Your task to perform on an android device: Search for "usb-c to usb-a" on bestbuy, select the first entry, and add it to the cart. Image 0: 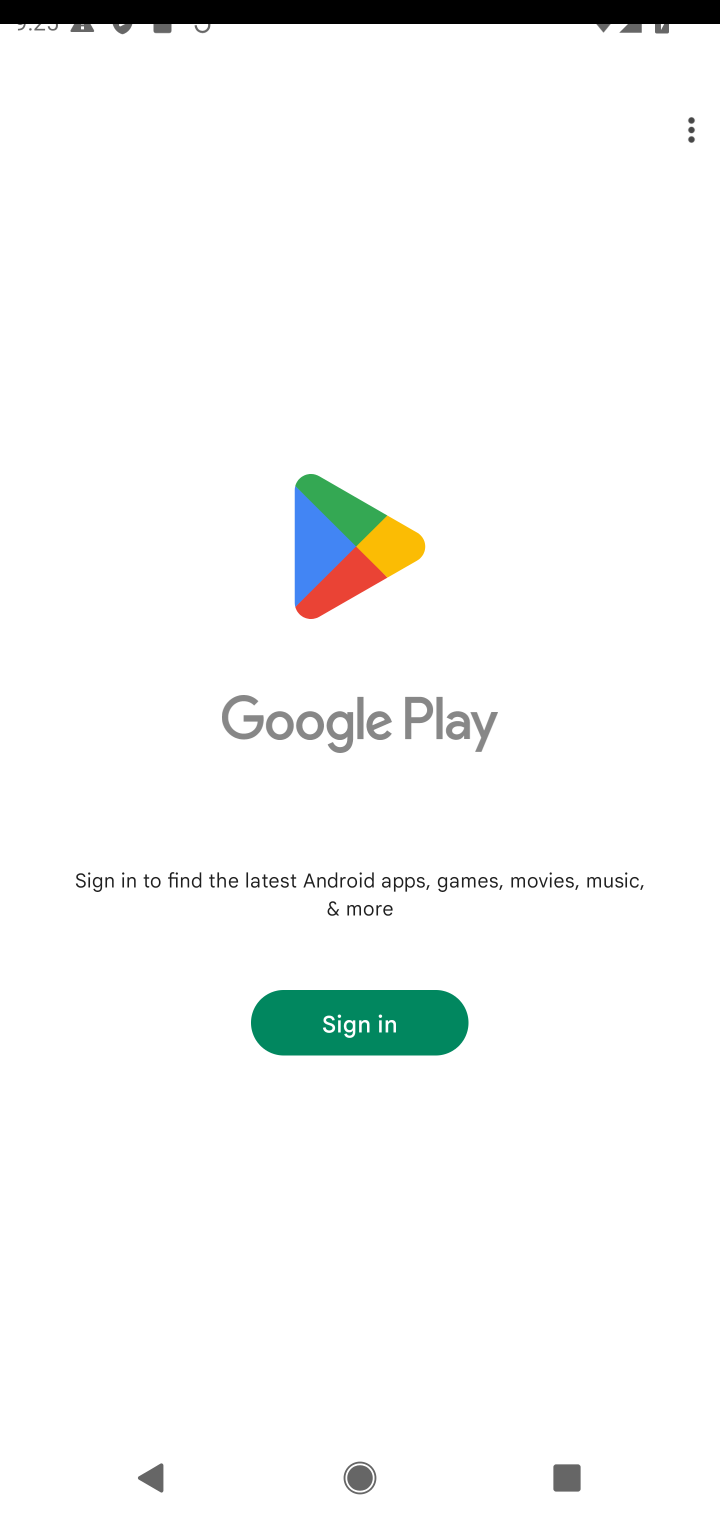
Step 0: press home button
Your task to perform on an android device: Search for "usb-c to usb-a" on bestbuy, select the first entry, and add it to the cart. Image 1: 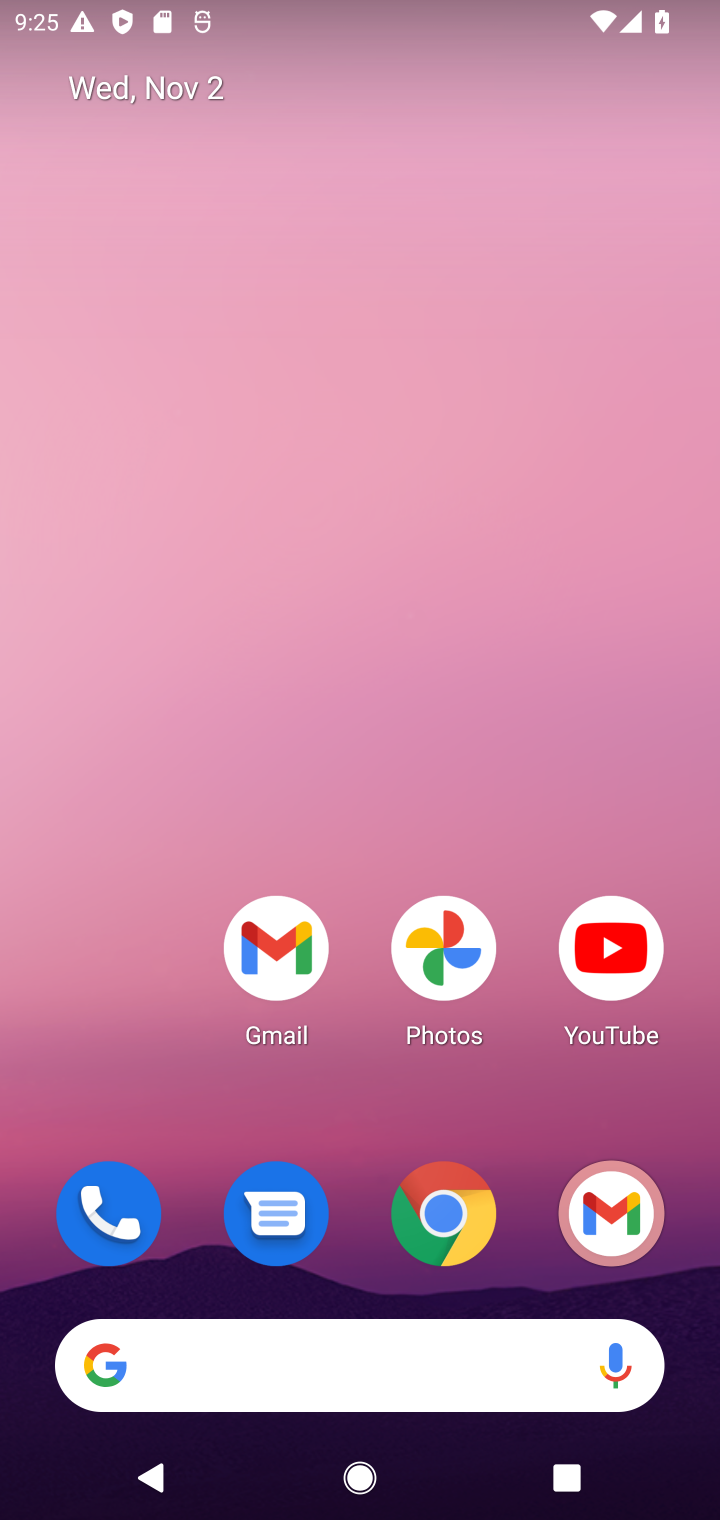
Step 1: click (453, 1234)
Your task to perform on an android device: Search for "usb-c to usb-a" on bestbuy, select the first entry, and add it to the cart. Image 2: 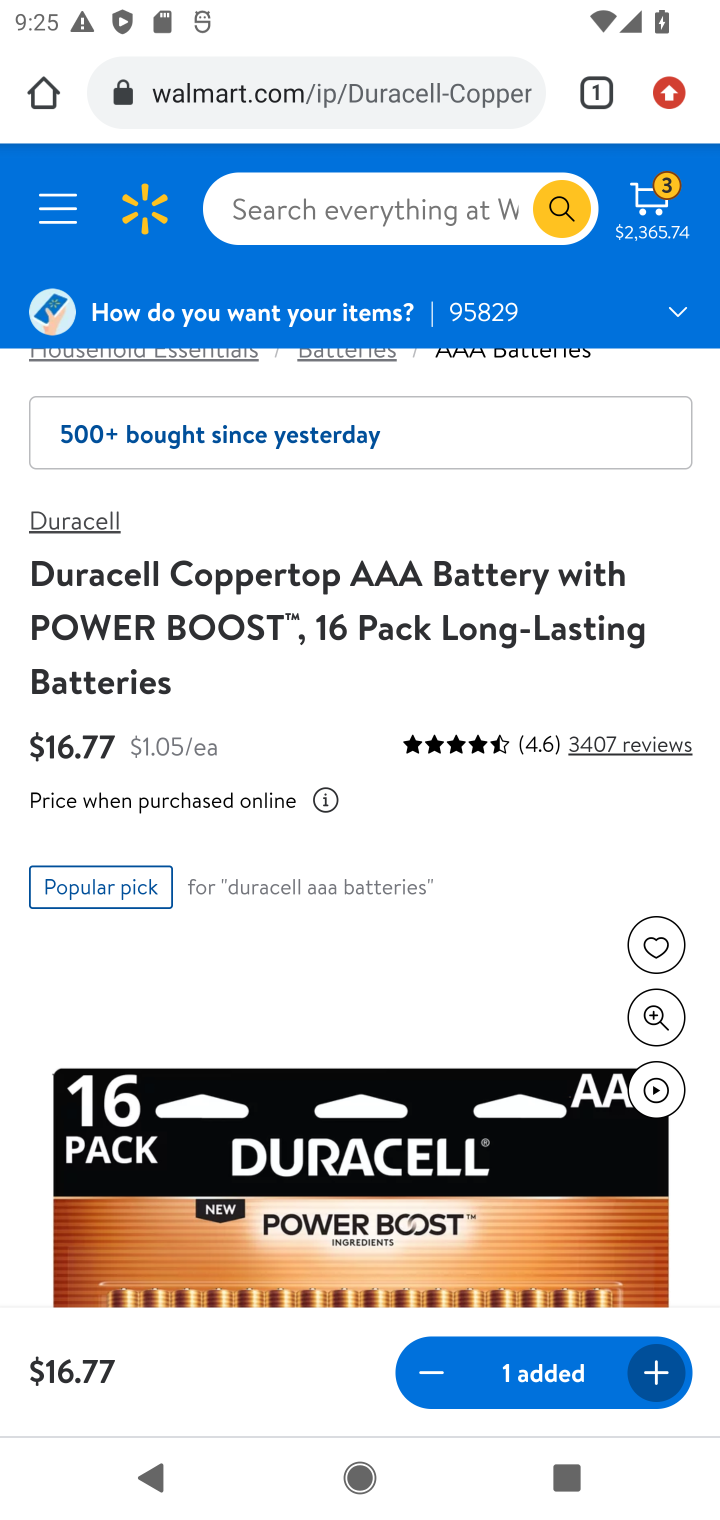
Step 2: click (324, 95)
Your task to perform on an android device: Search for "usb-c to usb-a" on bestbuy, select the first entry, and add it to the cart. Image 3: 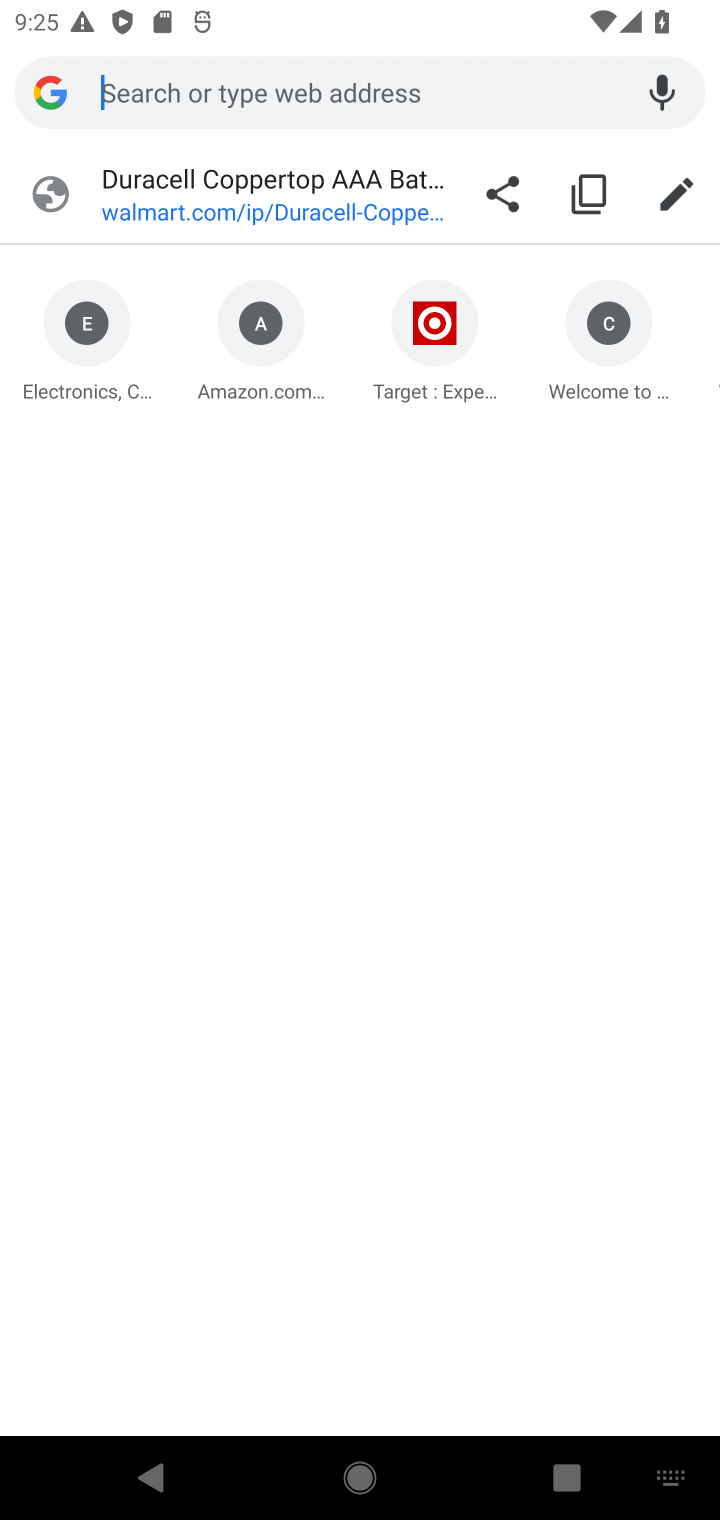
Step 3: type "bestbuy.com"
Your task to perform on an android device: Search for "usb-c to usb-a" on bestbuy, select the first entry, and add it to the cart. Image 4: 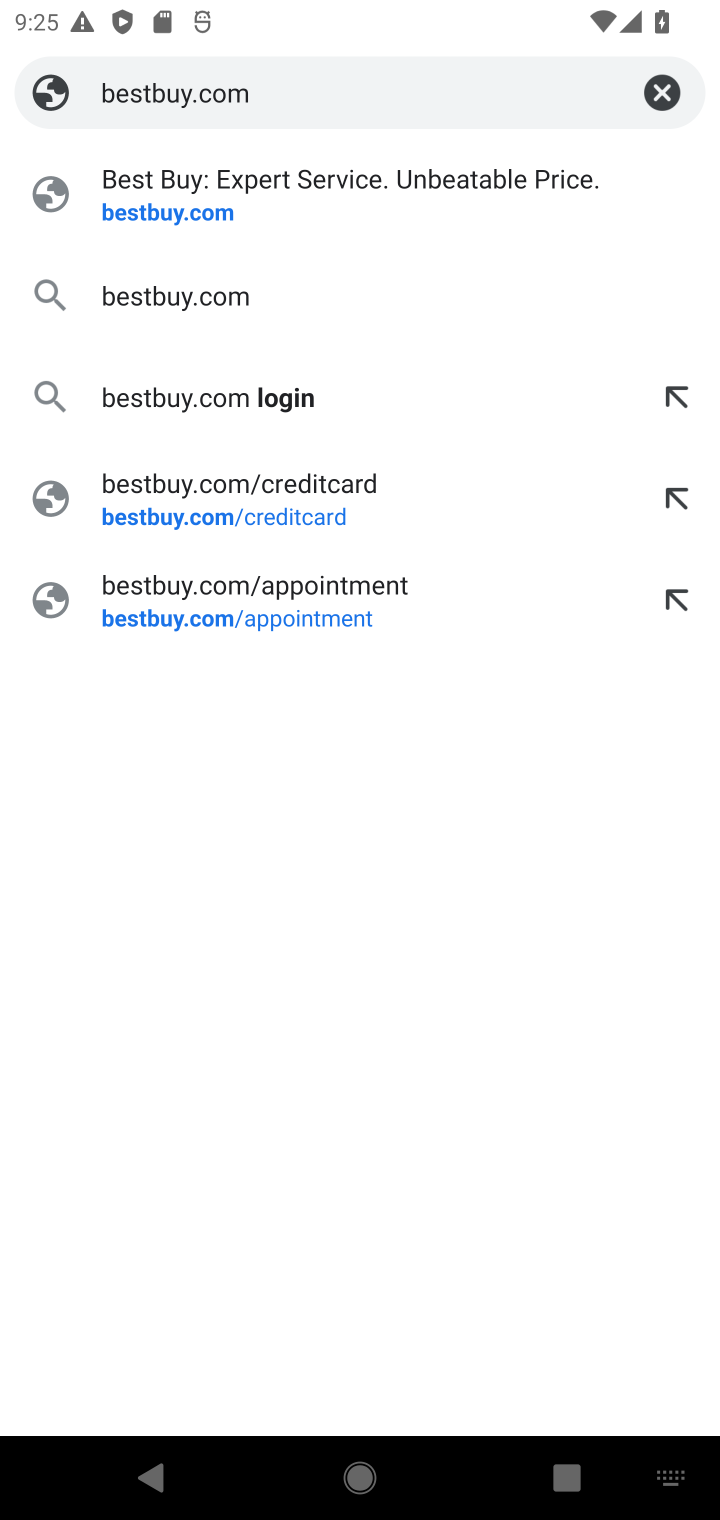
Step 4: click (147, 231)
Your task to perform on an android device: Search for "usb-c to usb-a" on bestbuy, select the first entry, and add it to the cart. Image 5: 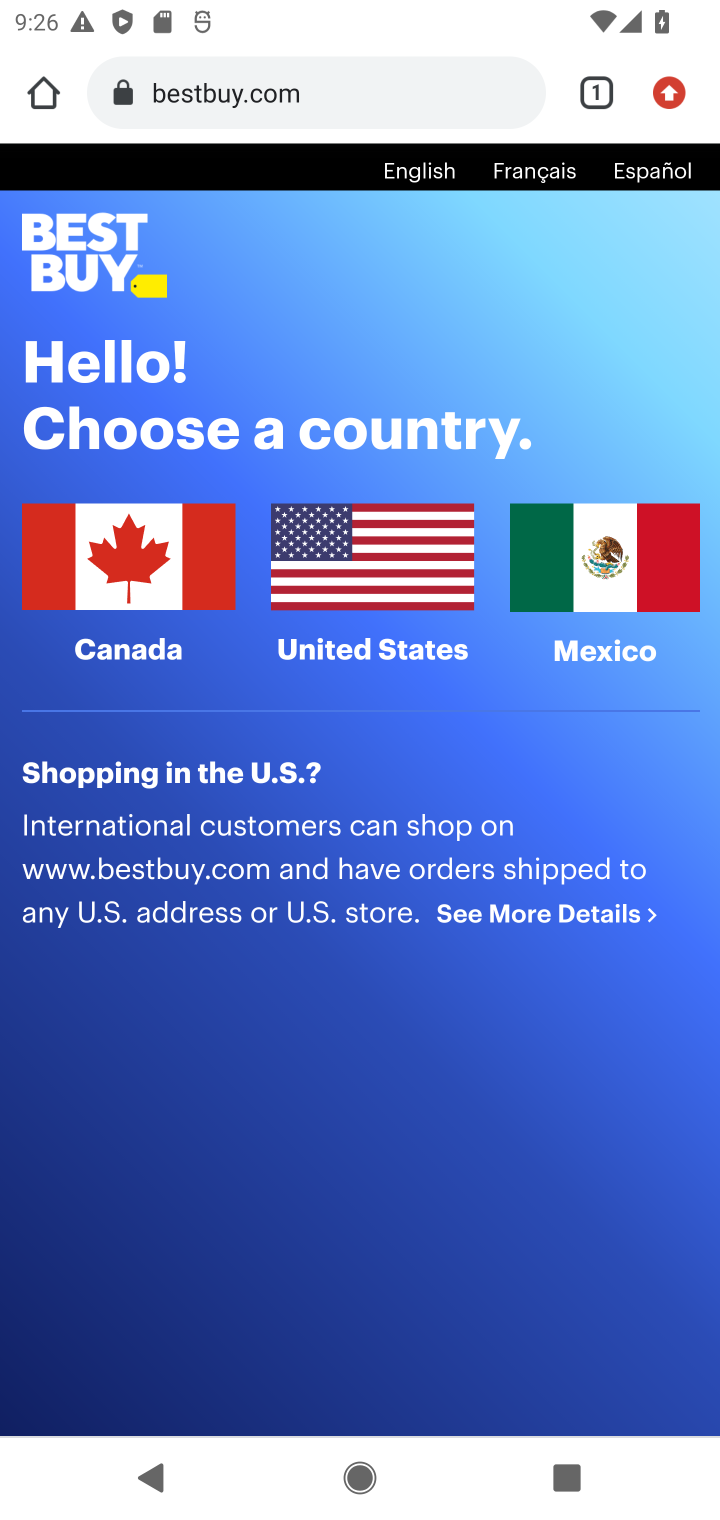
Step 5: click (355, 576)
Your task to perform on an android device: Search for "usb-c to usb-a" on bestbuy, select the first entry, and add it to the cart. Image 6: 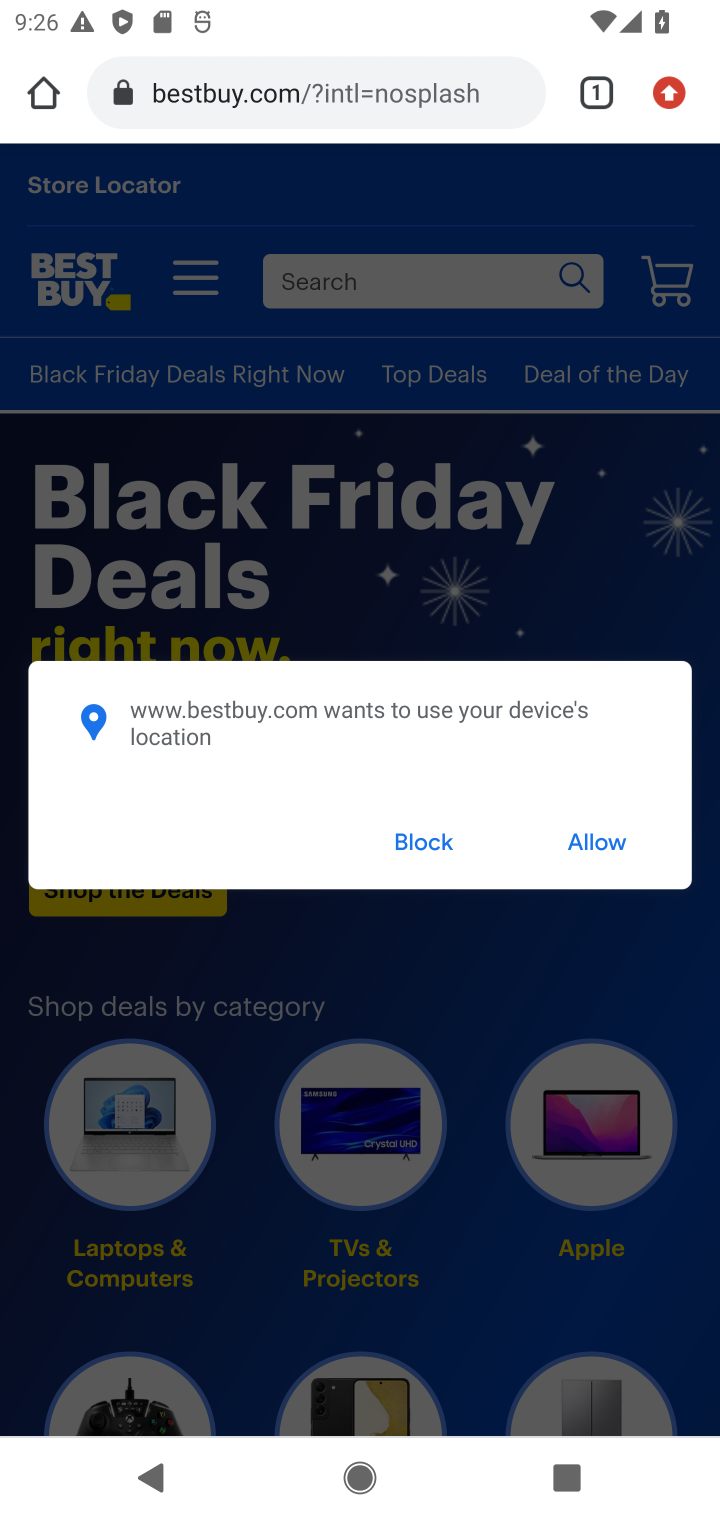
Step 6: click (342, 282)
Your task to perform on an android device: Search for "usb-c to usb-a" on bestbuy, select the first entry, and add it to the cart. Image 7: 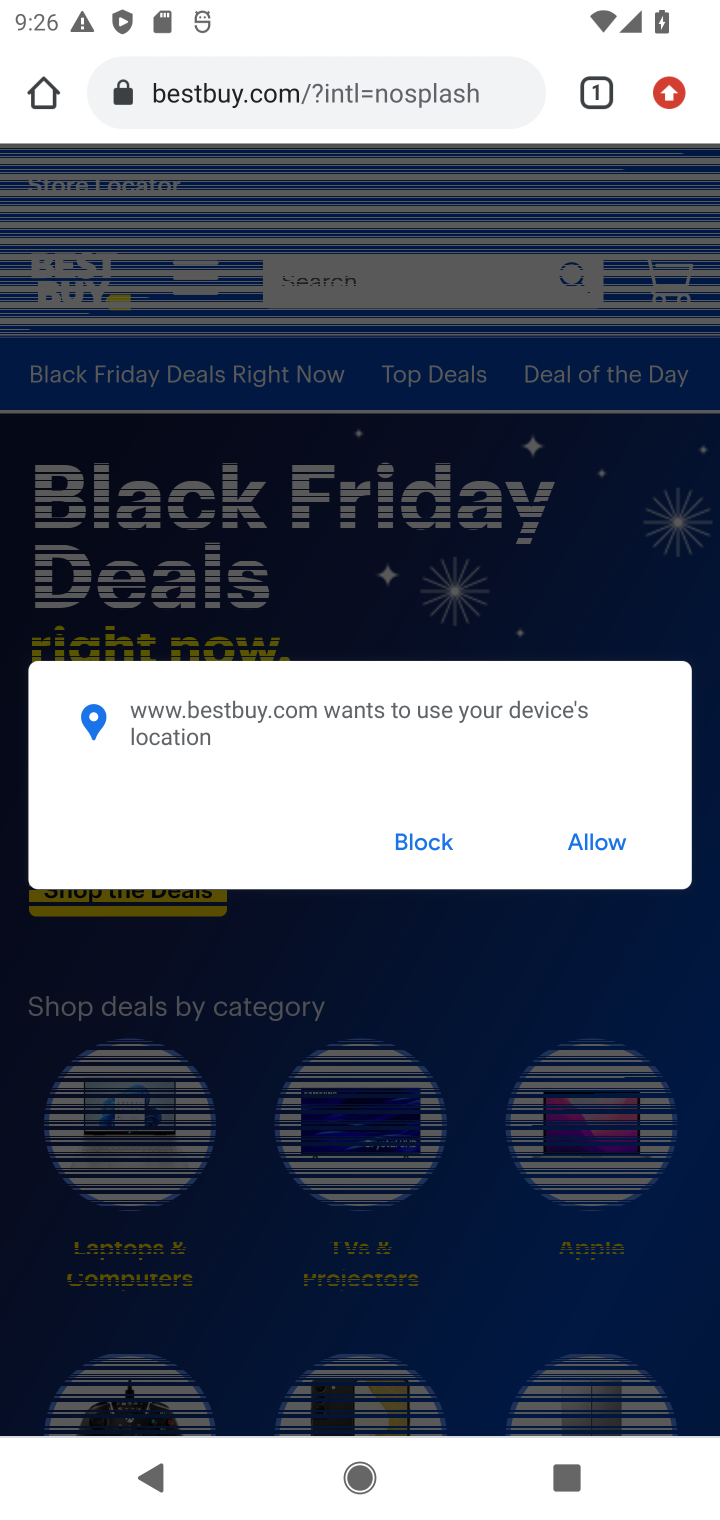
Step 7: click (407, 842)
Your task to perform on an android device: Search for "usb-c to usb-a" on bestbuy, select the first entry, and add it to the cart. Image 8: 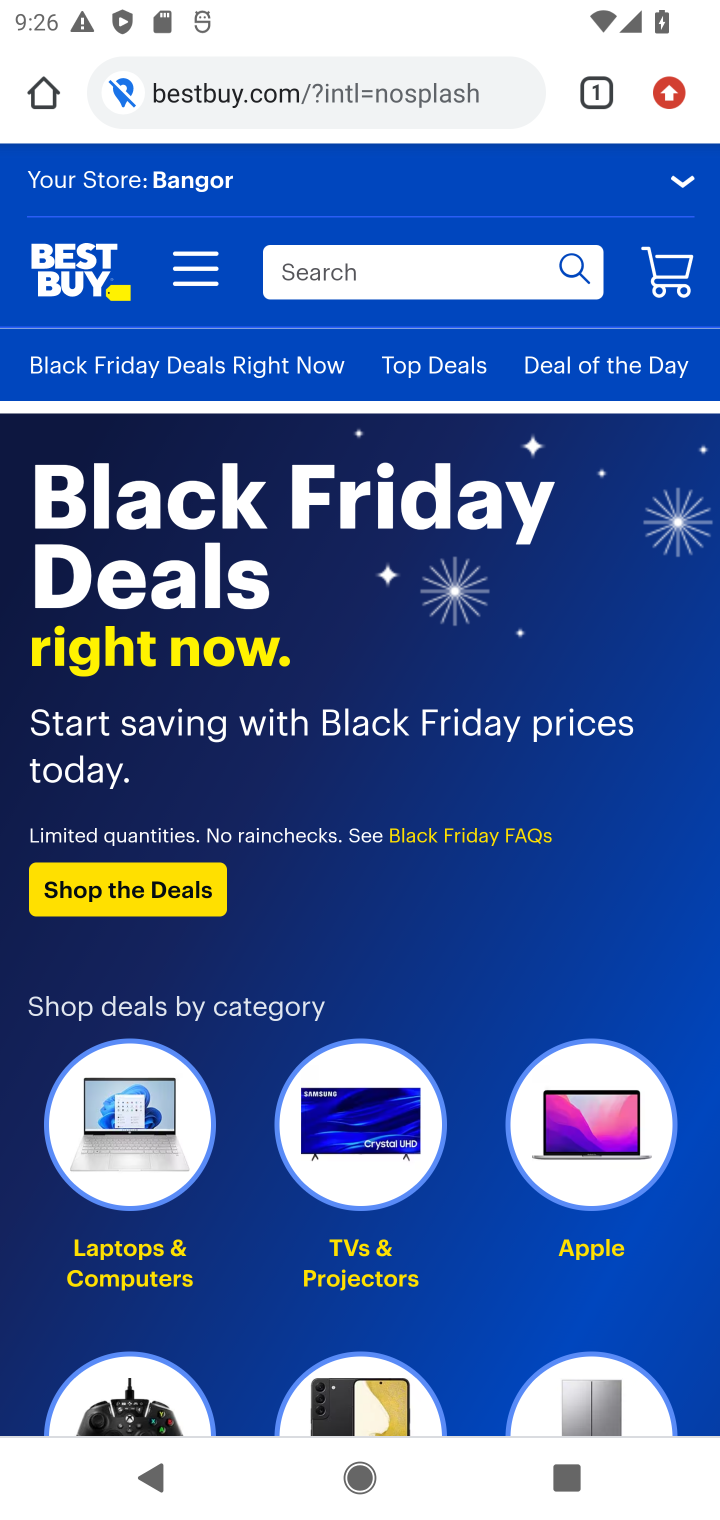
Step 8: click (363, 295)
Your task to perform on an android device: Search for "usb-c to usb-a" on bestbuy, select the first entry, and add it to the cart. Image 9: 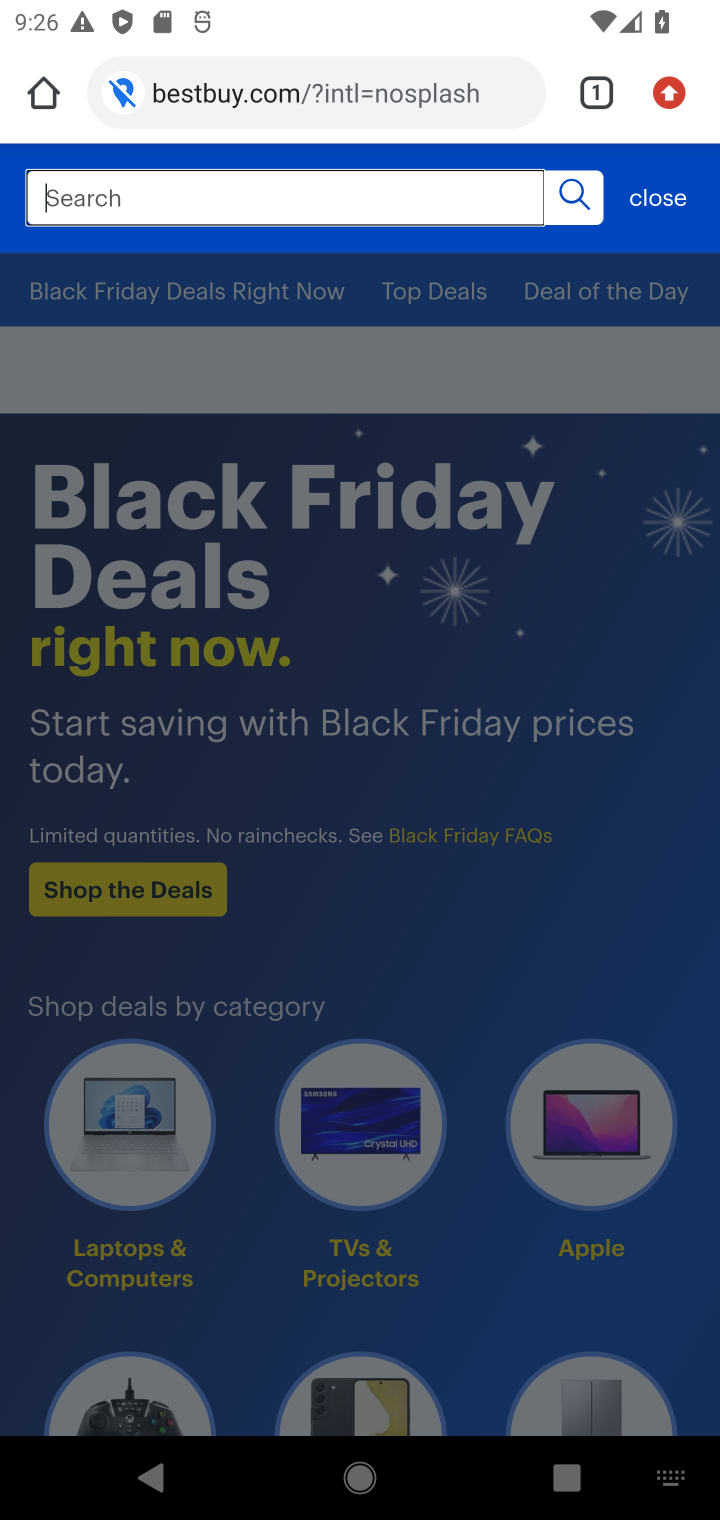
Step 9: type "usb-c to usb-a"
Your task to perform on an android device: Search for "usb-c to usb-a" on bestbuy, select the first entry, and add it to the cart. Image 10: 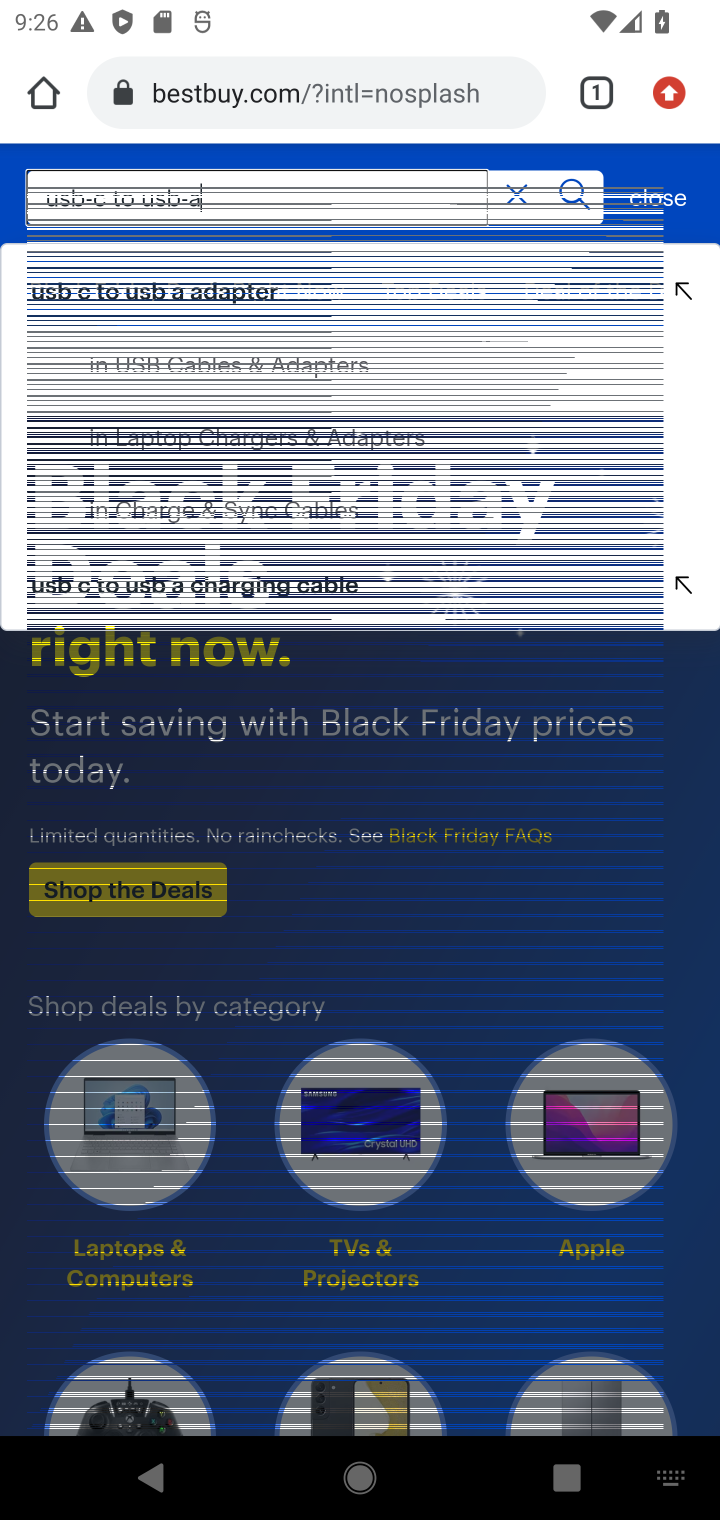
Step 10: click (163, 296)
Your task to perform on an android device: Search for "usb-c to usb-a" on bestbuy, select the first entry, and add it to the cart. Image 11: 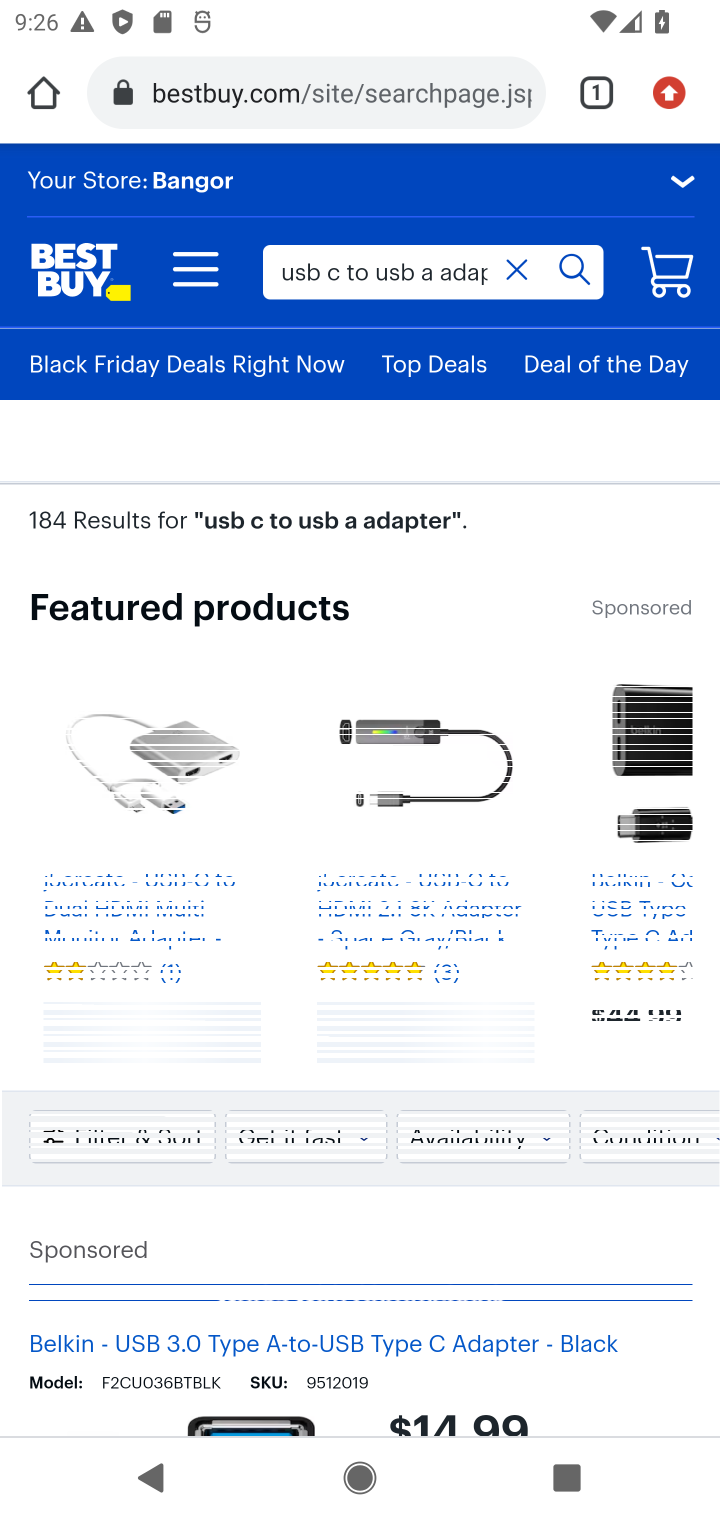
Step 11: drag from (381, 1088) to (387, 563)
Your task to perform on an android device: Search for "usb-c to usb-a" on bestbuy, select the first entry, and add it to the cart. Image 12: 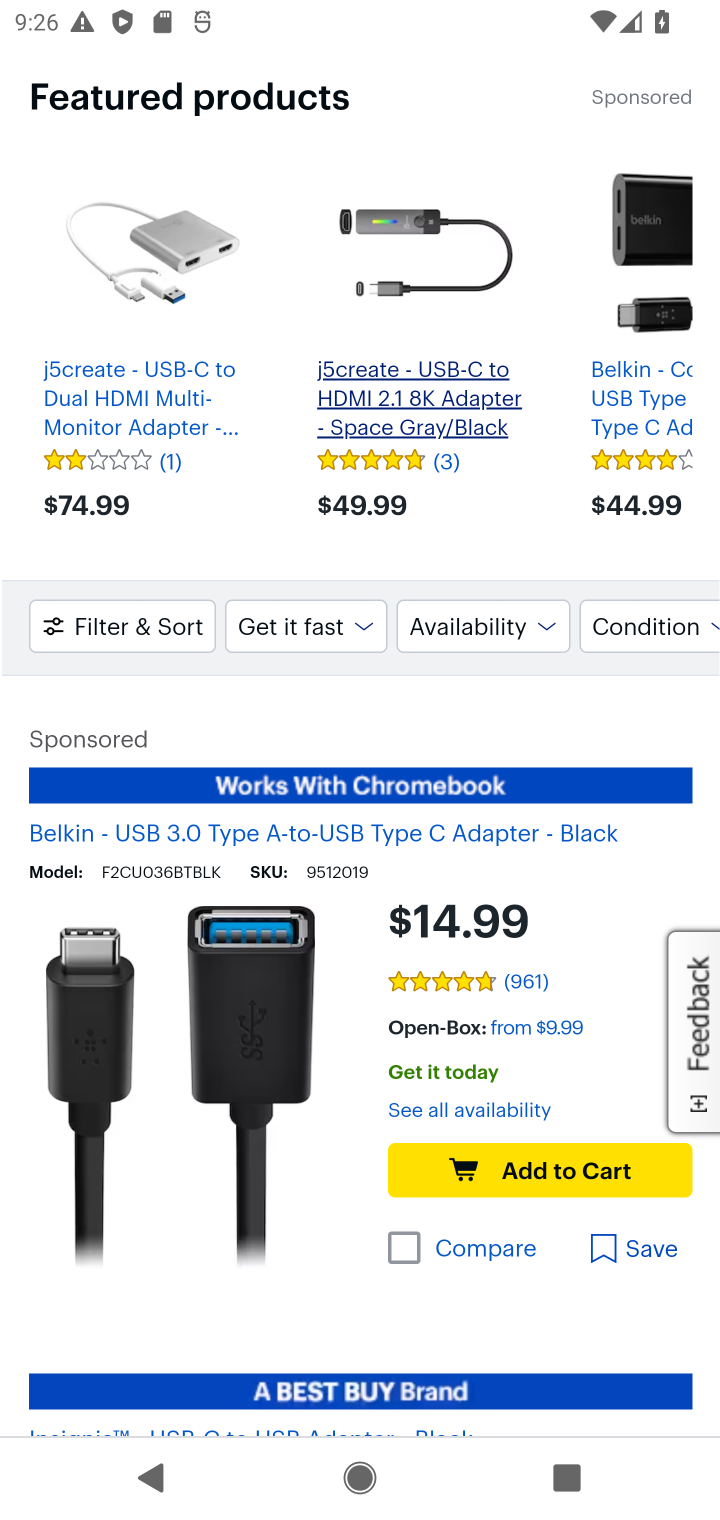
Step 12: click (264, 1066)
Your task to perform on an android device: Search for "usb-c to usb-a" on bestbuy, select the first entry, and add it to the cart. Image 13: 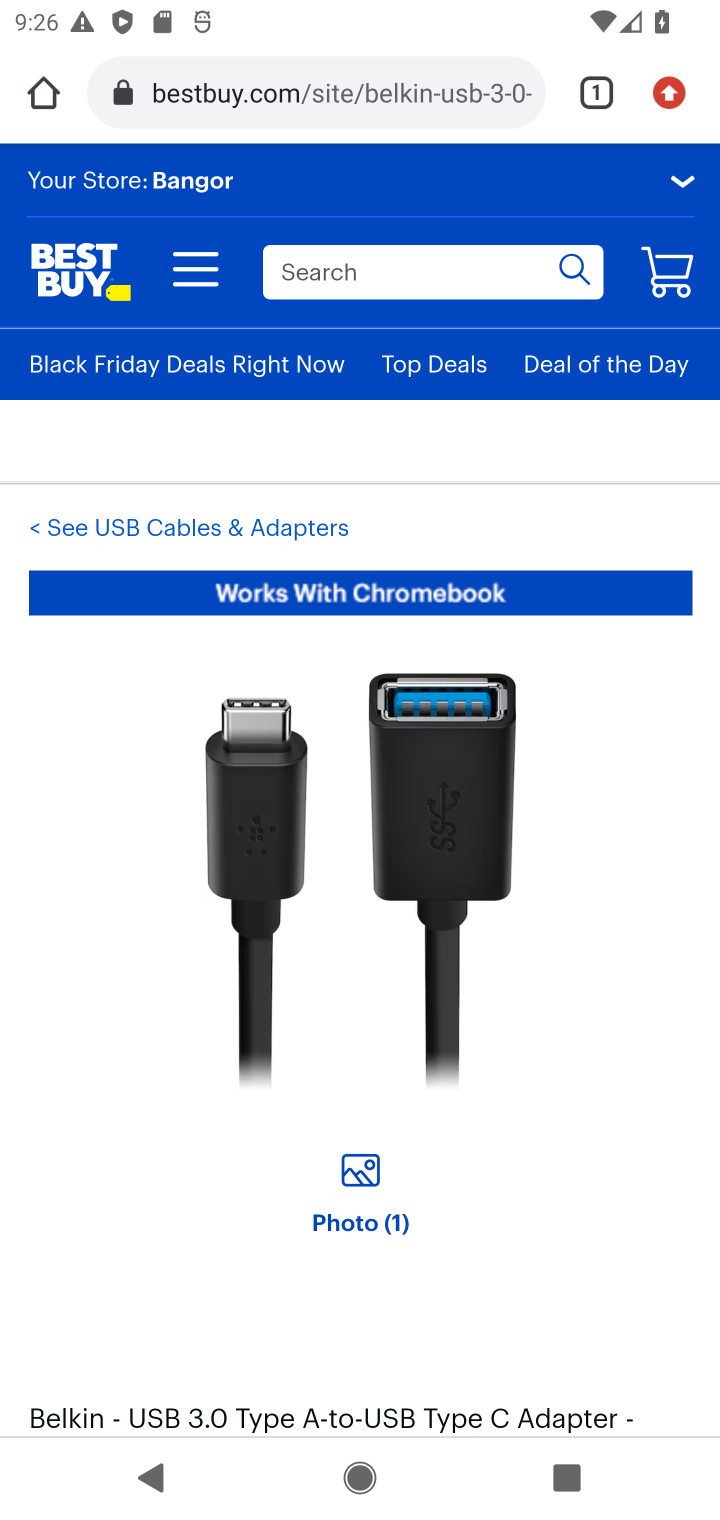
Step 13: drag from (403, 1172) to (357, 773)
Your task to perform on an android device: Search for "usb-c to usb-a" on bestbuy, select the first entry, and add it to the cart. Image 14: 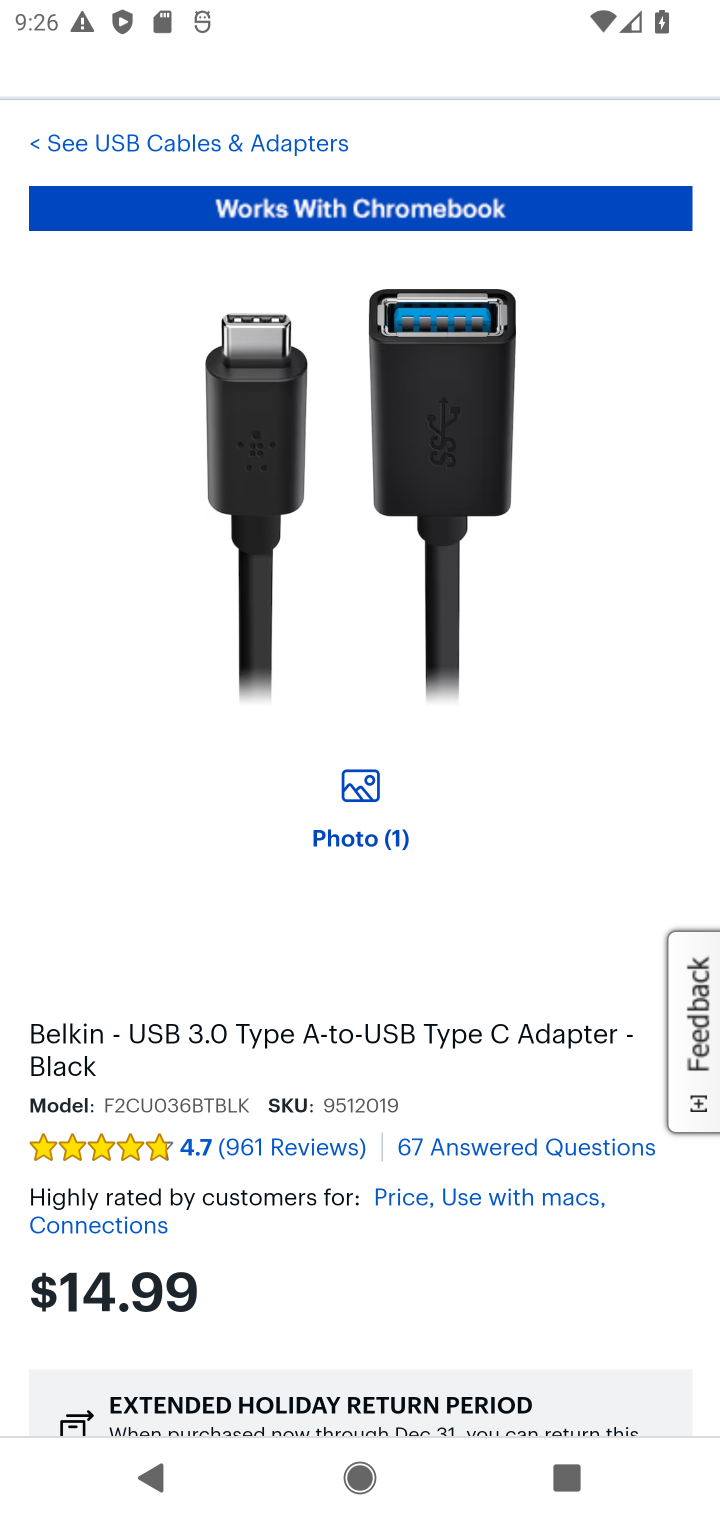
Step 14: drag from (274, 1256) to (261, 529)
Your task to perform on an android device: Search for "usb-c to usb-a" on bestbuy, select the first entry, and add it to the cart. Image 15: 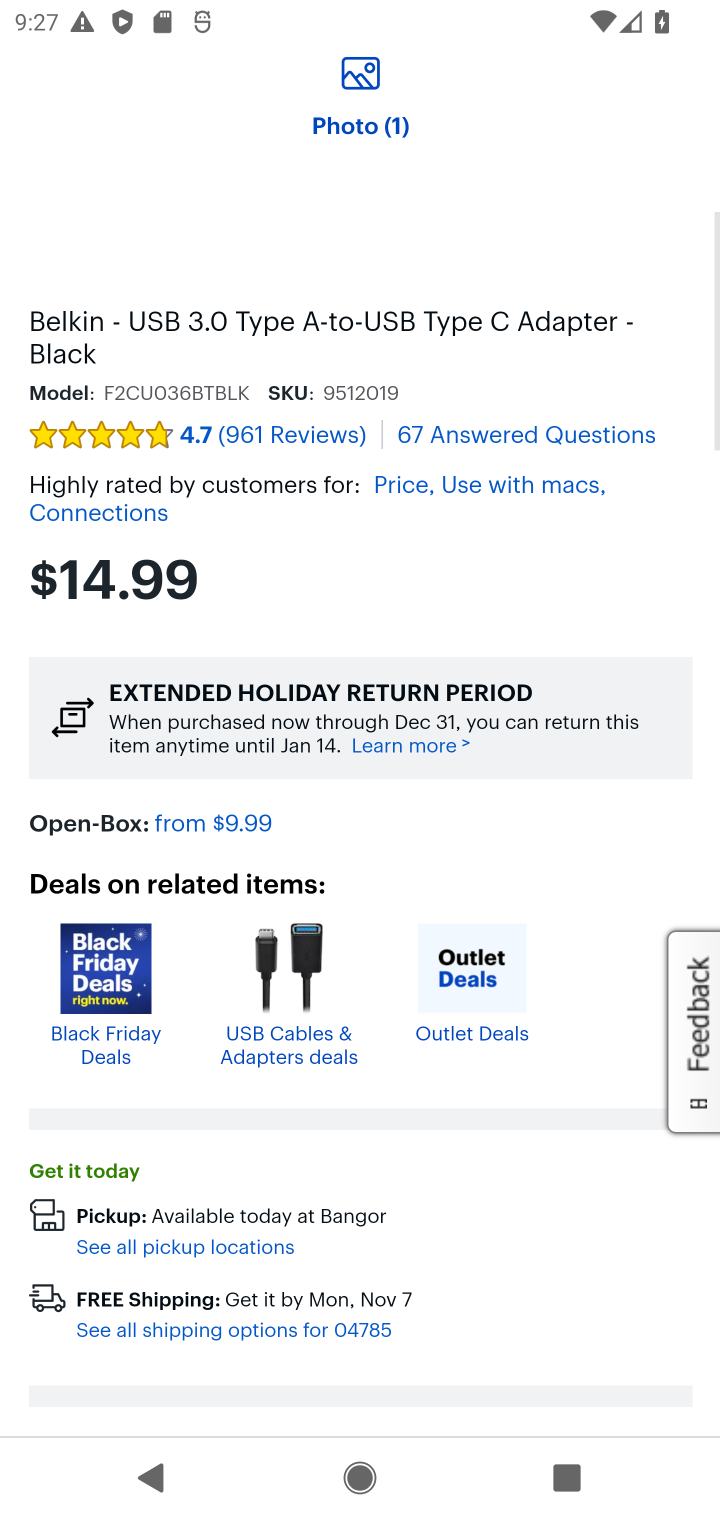
Step 15: drag from (281, 1169) to (287, 639)
Your task to perform on an android device: Search for "usb-c to usb-a" on bestbuy, select the first entry, and add it to the cart. Image 16: 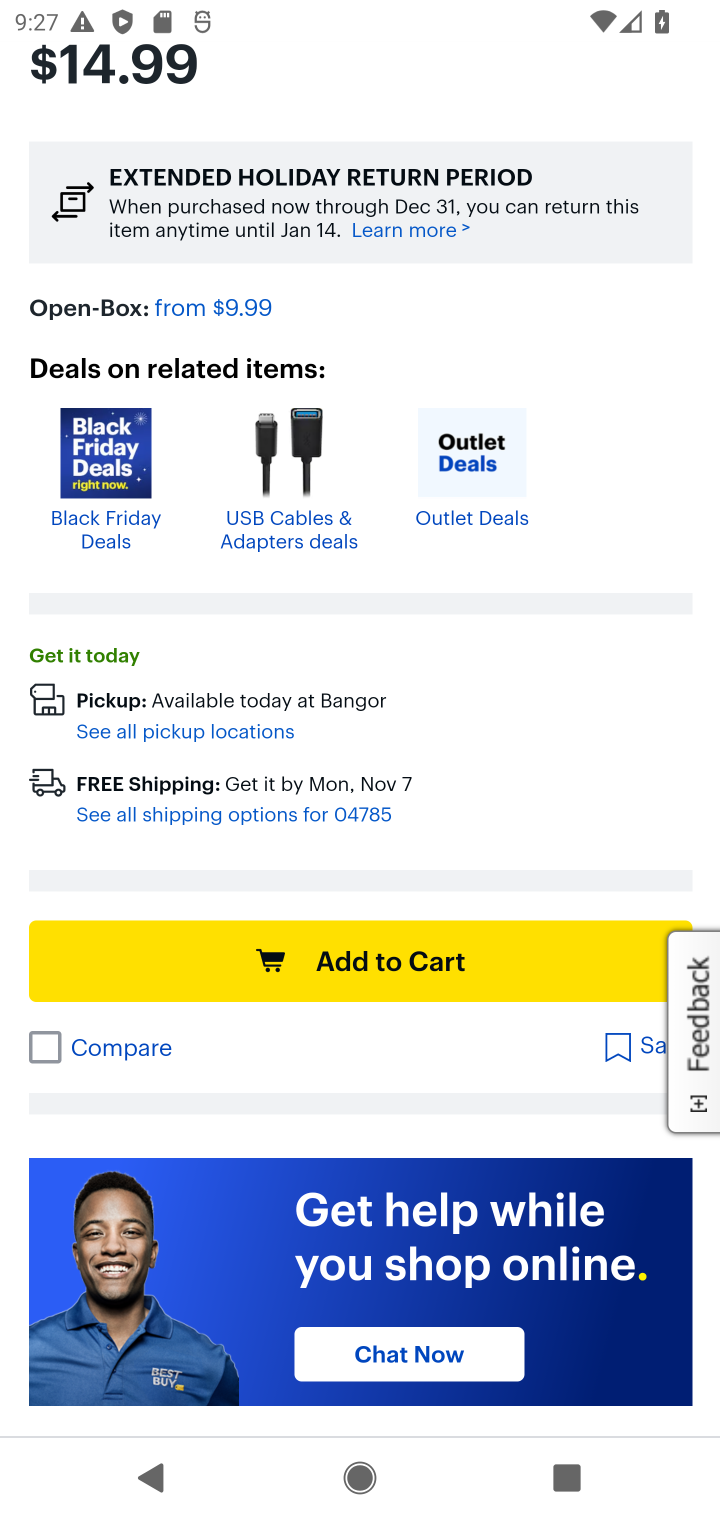
Step 16: click (406, 960)
Your task to perform on an android device: Search for "usb-c to usb-a" on bestbuy, select the first entry, and add it to the cart. Image 17: 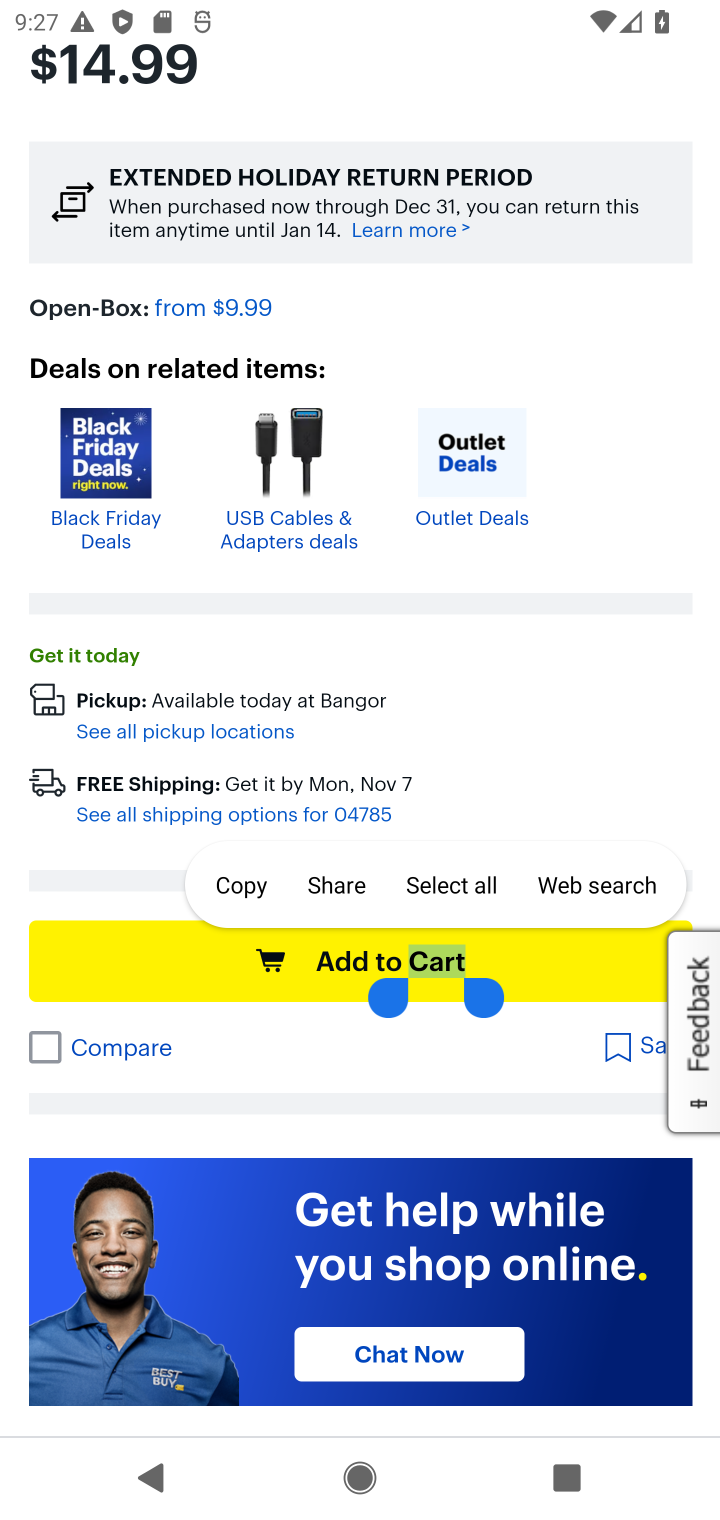
Step 17: click (350, 960)
Your task to perform on an android device: Search for "usb-c to usb-a" on bestbuy, select the first entry, and add it to the cart. Image 18: 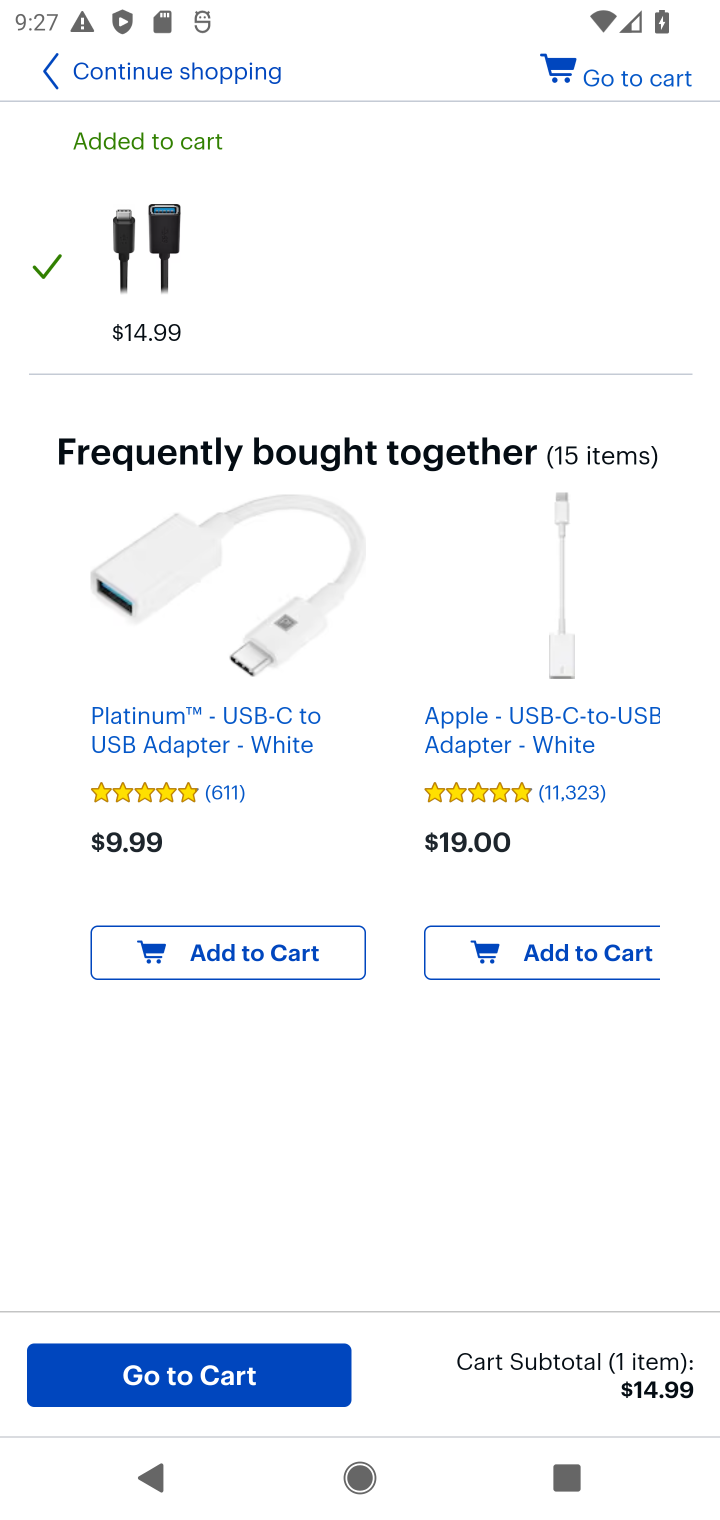
Step 18: task complete